Your task to perform on an android device: open app "Contacts" Image 0: 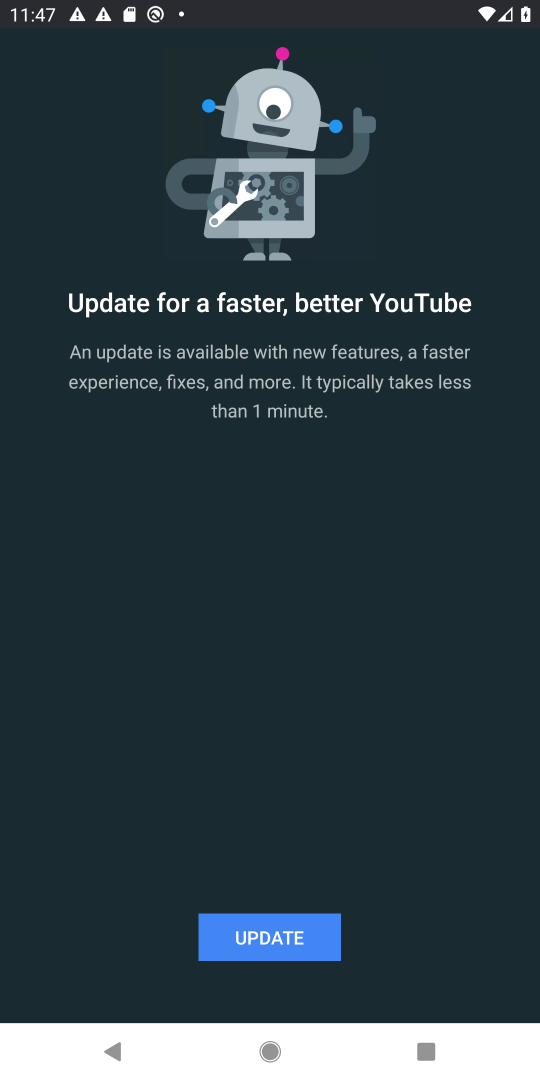
Step 0: press home button
Your task to perform on an android device: open app "Contacts" Image 1: 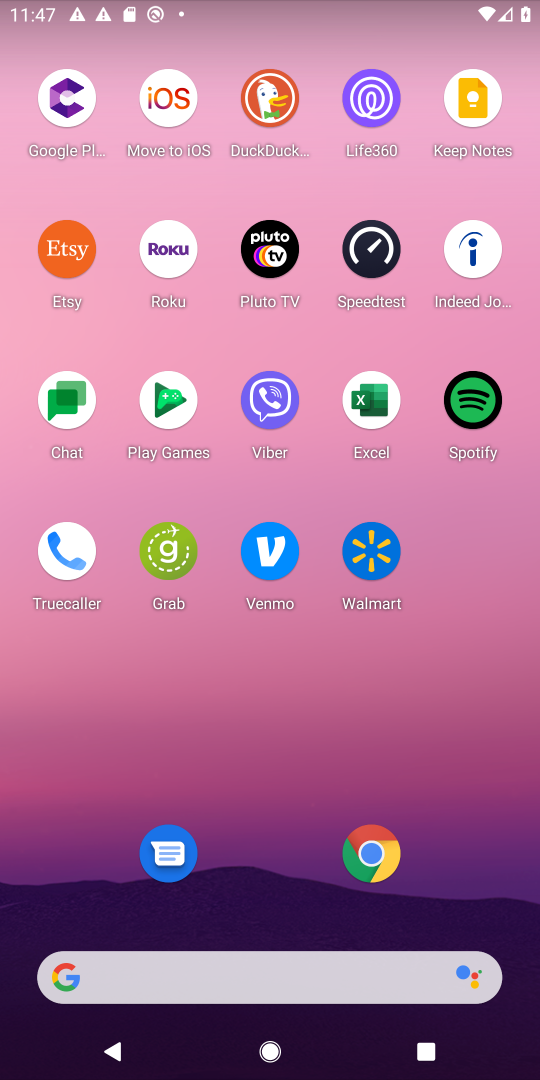
Step 1: drag from (319, 1068) to (324, 41)
Your task to perform on an android device: open app "Contacts" Image 2: 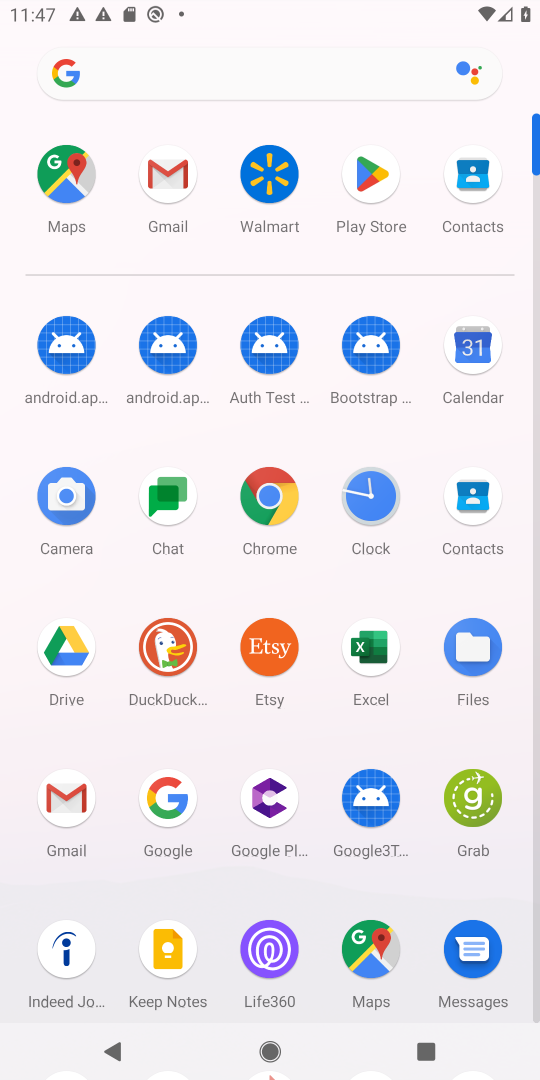
Step 2: click (467, 175)
Your task to perform on an android device: open app "Contacts" Image 3: 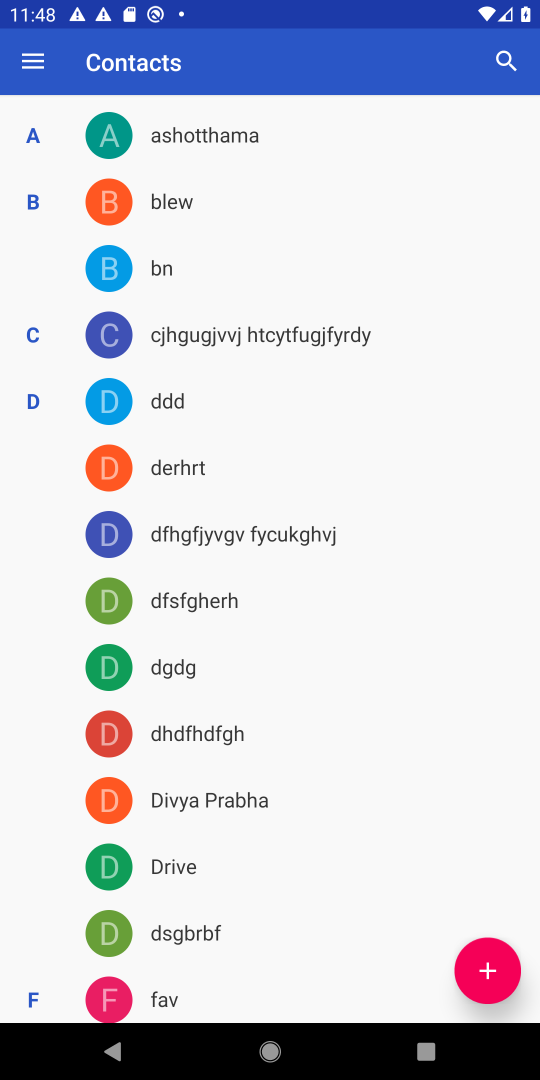
Step 3: task complete